Your task to perform on an android device: turn off translation in the chrome app Image 0: 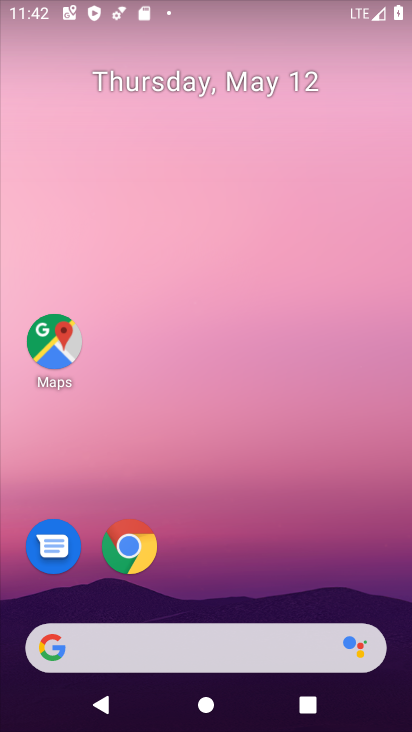
Step 0: click (136, 541)
Your task to perform on an android device: turn off translation in the chrome app Image 1: 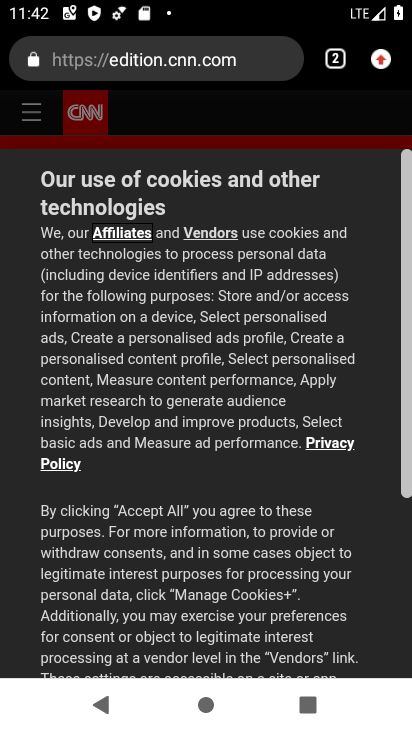
Step 1: click (385, 65)
Your task to perform on an android device: turn off translation in the chrome app Image 2: 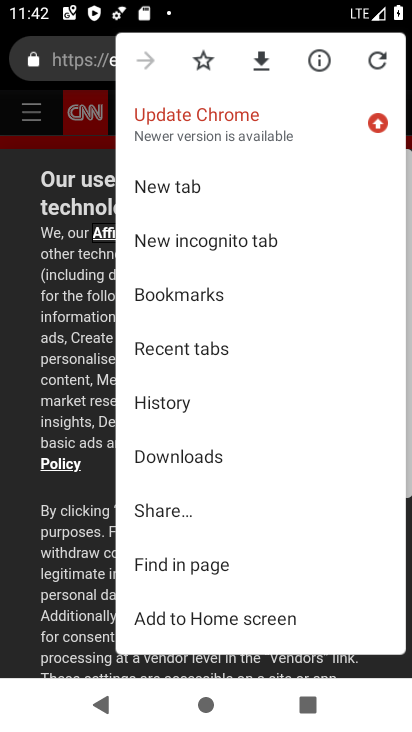
Step 2: drag from (258, 548) to (262, 296)
Your task to perform on an android device: turn off translation in the chrome app Image 3: 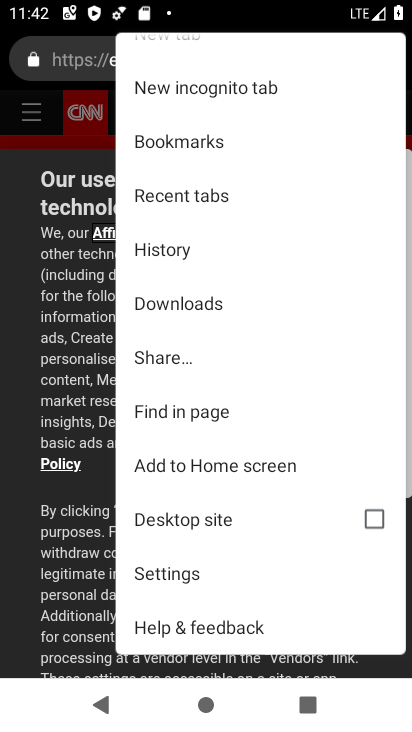
Step 3: click (178, 567)
Your task to perform on an android device: turn off translation in the chrome app Image 4: 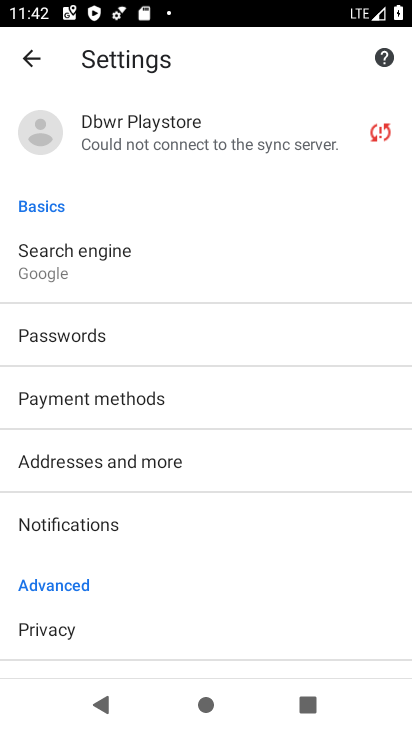
Step 4: drag from (178, 567) to (180, 310)
Your task to perform on an android device: turn off translation in the chrome app Image 5: 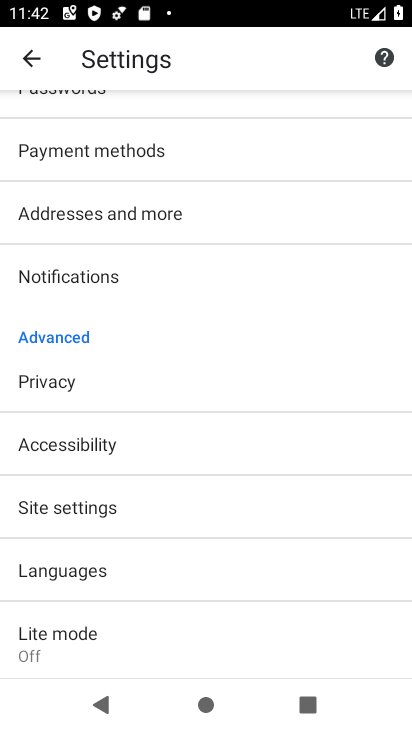
Step 5: click (89, 569)
Your task to perform on an android device: turn off translation in the chrome app Image 6: 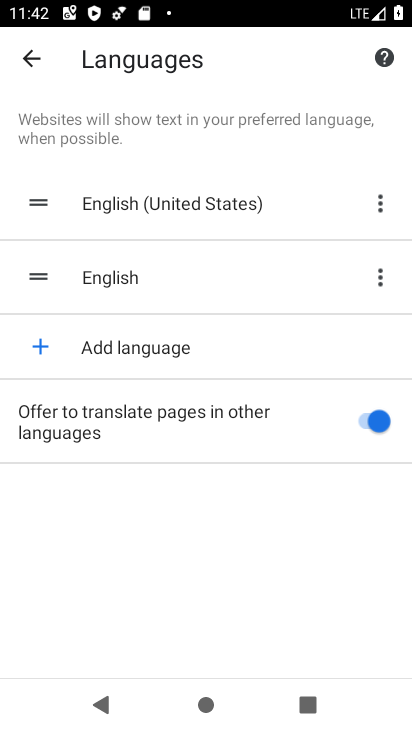
Step 6: click (361, 423)
Your task to perform on an android device: turn off translation in the chrome app Image 7: 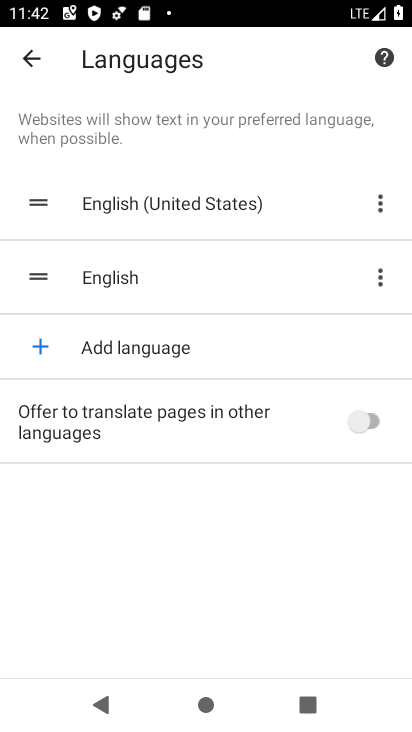
Step 7: task complete